Your task to perform on an android device: turn on javascript in the chrome app Image 0: 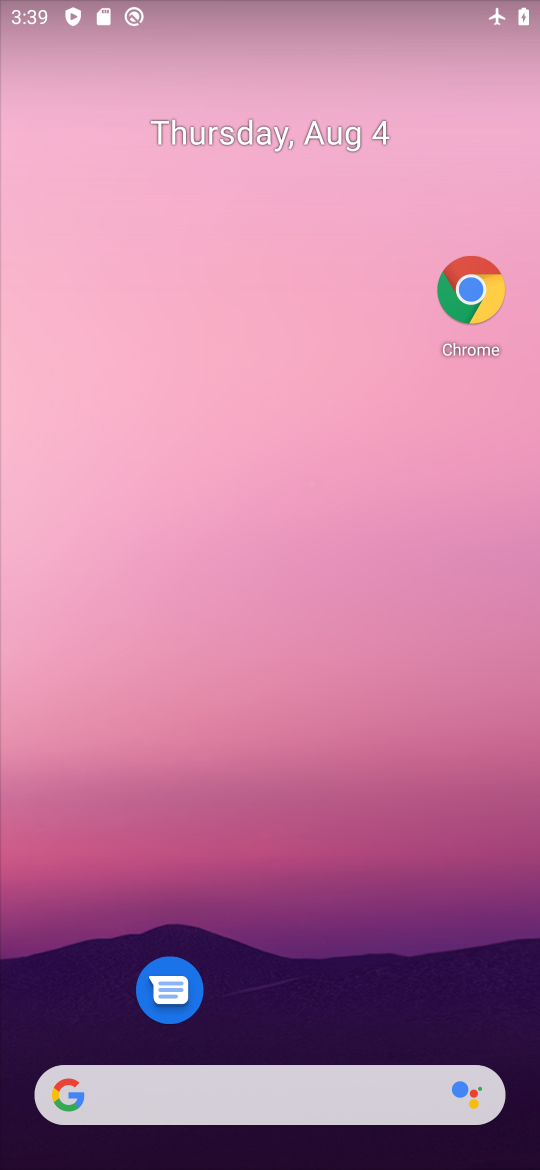
Step 0: click (462, 350)
Your task to perform on an android device: turn on javascript in the chrome app Image 1: 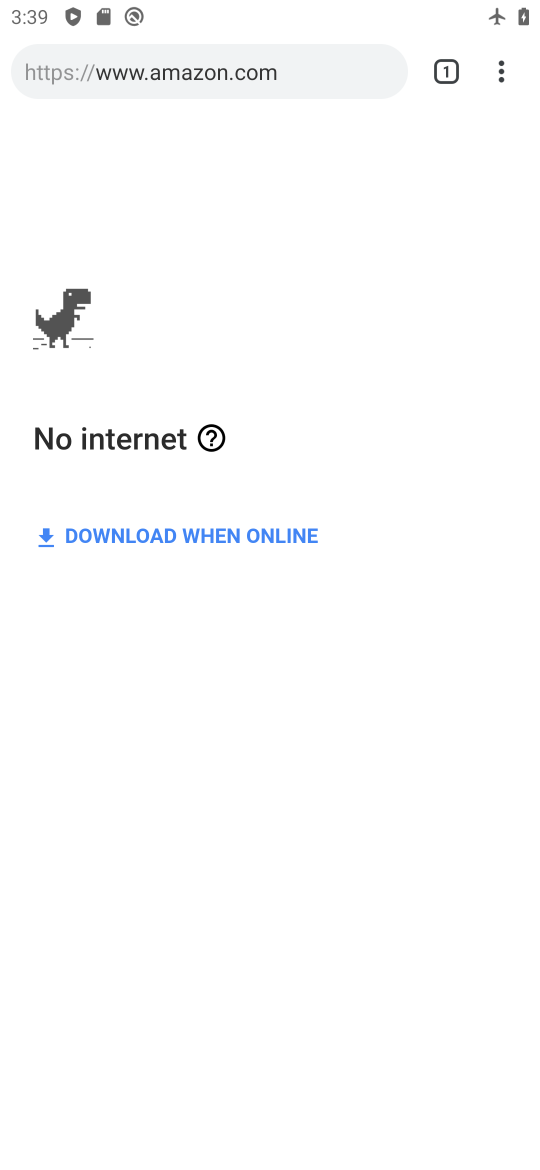
Step 1: click (398, 562)
Your task to perform on an android device: turn on javascript in the chrome app Image 2: 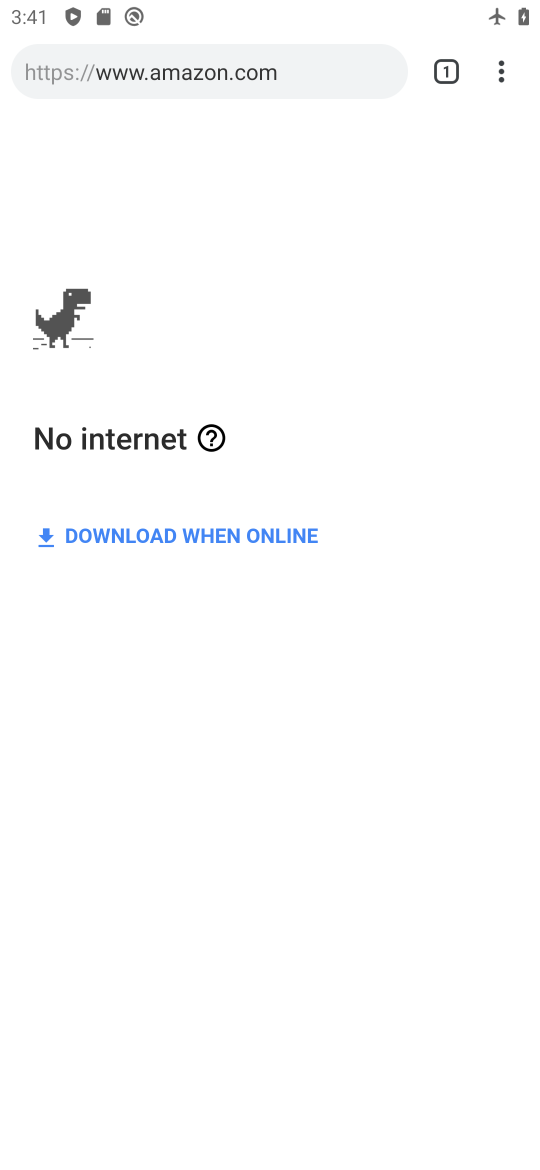
Step 2: task complete